Your task to perform on an android device: turn off smart reply in the gmail app Image 0: 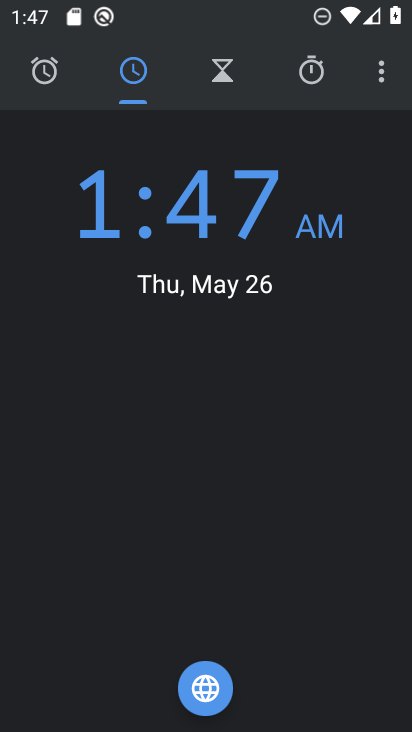
Step 0: press home button
Your task to perform on an android device: turn off smart reply in the gmail app Image 1: 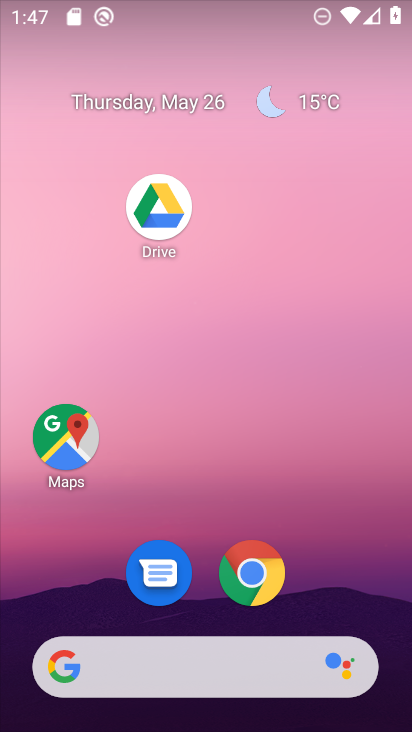
Step 1: drag from (349, 612) to (257, 157)
Your task to perform on an android device: turn off smart reply in the gmail app Image 2: 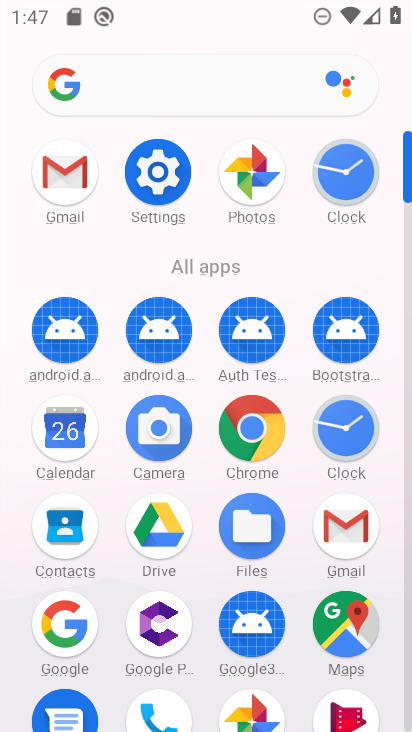
Step 2: click (353, 532)
Your task to perform on an android device: turn off smart reply in the gmail app Image 3: 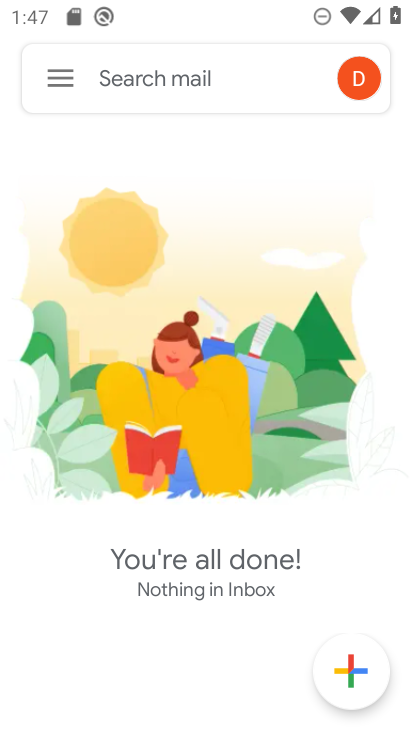
Step 3: click (62, 82)
Your task to perform on an android device: turn off smart reply in the gmail app Image 4: 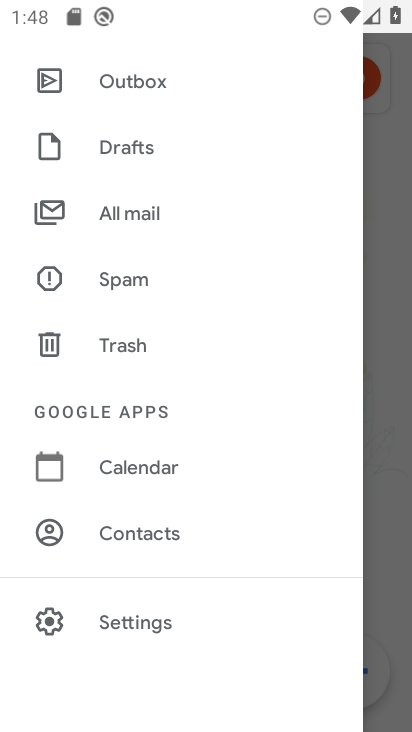
Step 4: drag from (236, 634) to (221, 418)
Your task to perform on an android device: turn off smart reply in the gmail app Image 5: 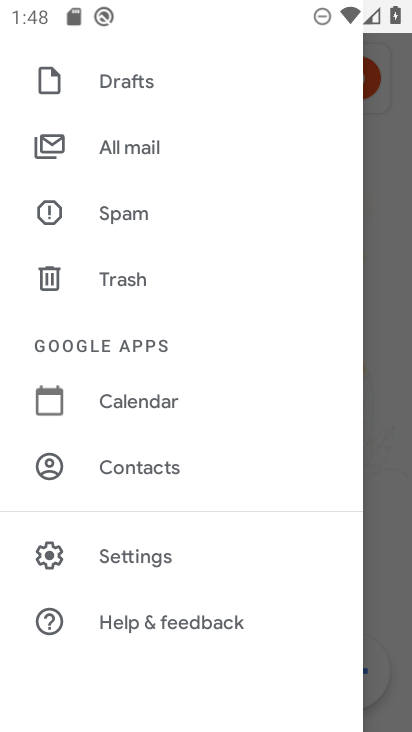
Step 5: click (177, 550)
Your task to perform on an android device: turn off smart reply in the gmail app Image 6: 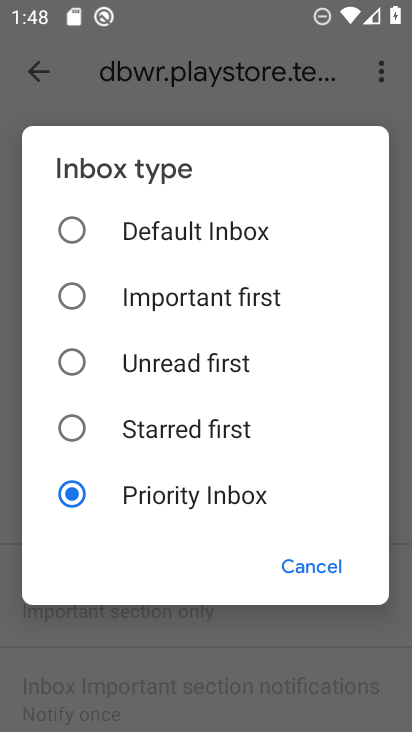
Step 6: click (304, 554)
Your task to perform on an android device: turn off smart reply in the gmail app Image 7: 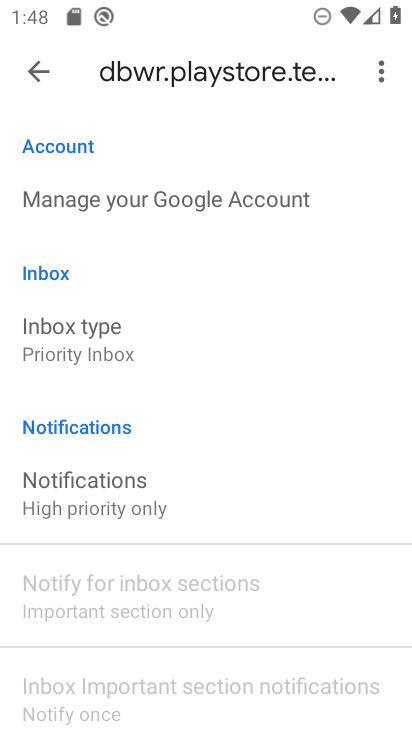
Step 7: drag from (303, 700) to (254, 333)
Your task to perform on an android device: turn off smart reply in the gmail app Image 8: 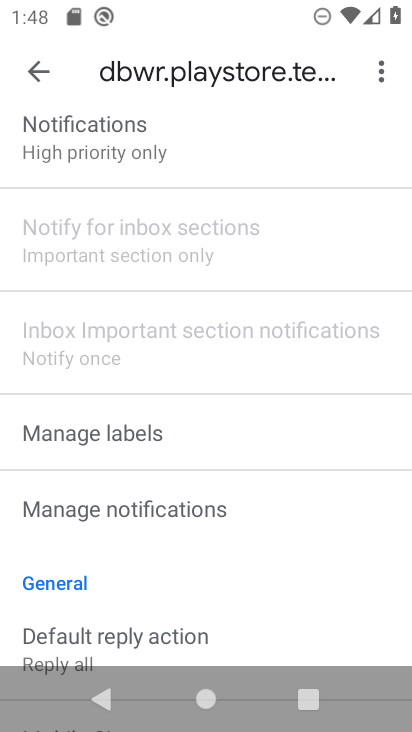
Step 8: drag from (251, 645) to (234, 247)
Your task to perform on an android device: turn off smart reply in the gmail app Image 9: 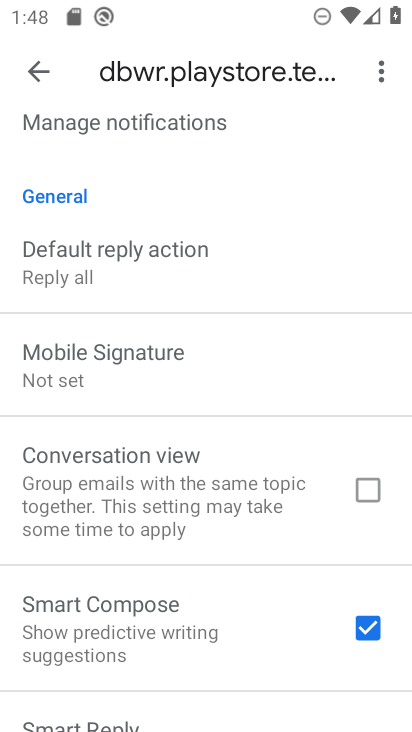
Step 9: drag from (261, 618) to (250, 273)
Your task to perform on an android device: turn off smart reply in the gmail app Image 10: 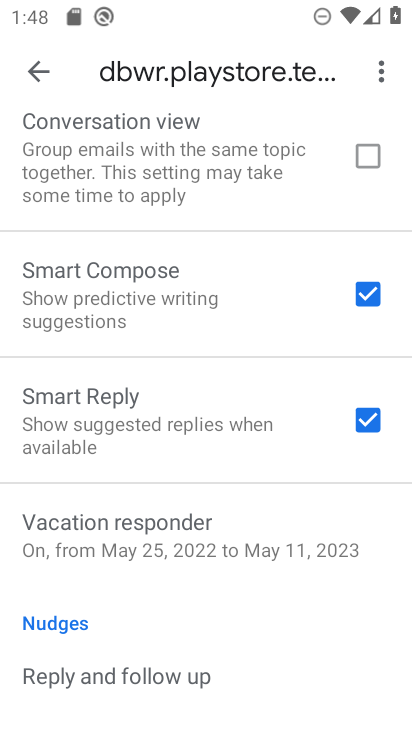
Step 10: click (366, 431)
Your task to perform on an android device: turn off smart reply in the gmail app Image 11: 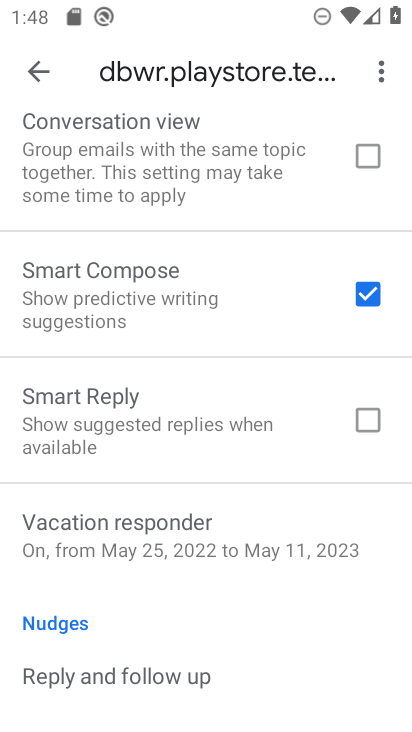
Step 11: task complete